Your task to perform on an android device: Do I have any events this weekend? Image 0: 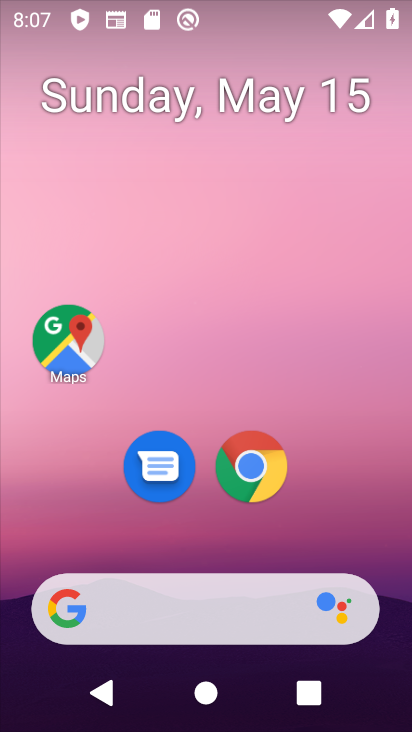
Step 0: drag from (267, 567) to (343, 724)
Your task to perform on an android device: Do I have any events this weekend? Image 1: 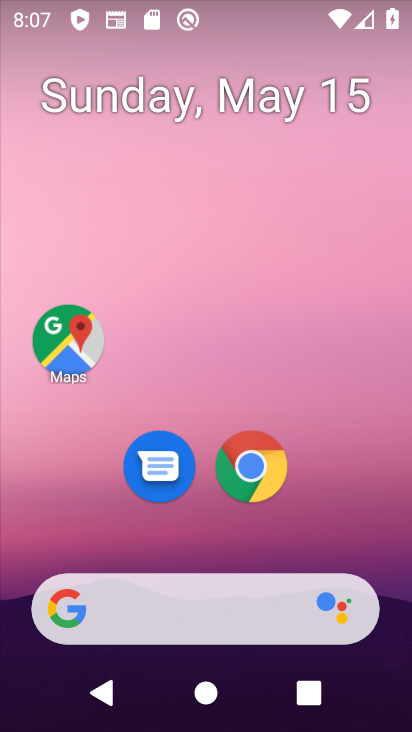
Step 1: click (66, 390)
Your task to perform on an android device: Do I have any events this weekend? Image 2: 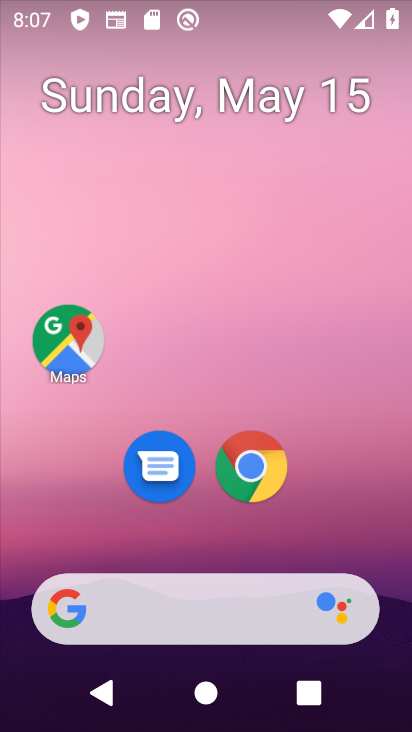
Step 2: drag from (217, 579) to (363, 173)
Your task to perform on an android device: Do I have any events this weekend? Image 3: 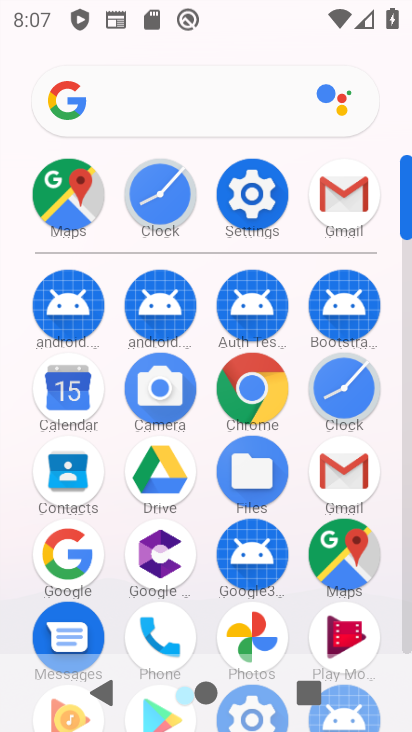
Step 3: click (57, 397)
Your task to perform on an android device: Do I have any events this weekend? Image 4: 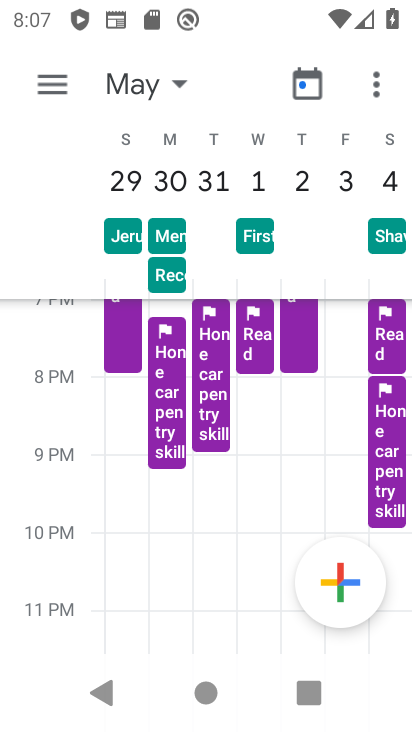
Step 4: click (310, 87)
Your task to perform on an android device: Do I have any events this weekend? Image 5: 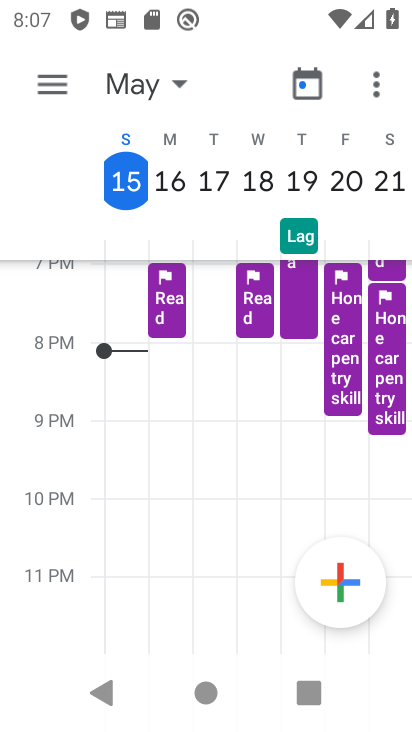
Step 5: task complete